Your task to perform on an android device: turn off smart reply in the gmail app Image 0: 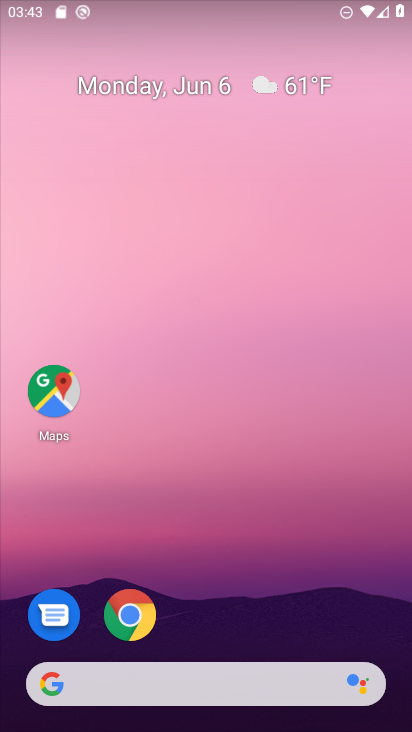
Step 0: drag from (375, 616) to (353, 105)
Your task to perform on an android device: turn off smart reply in the gmail app Image 1: 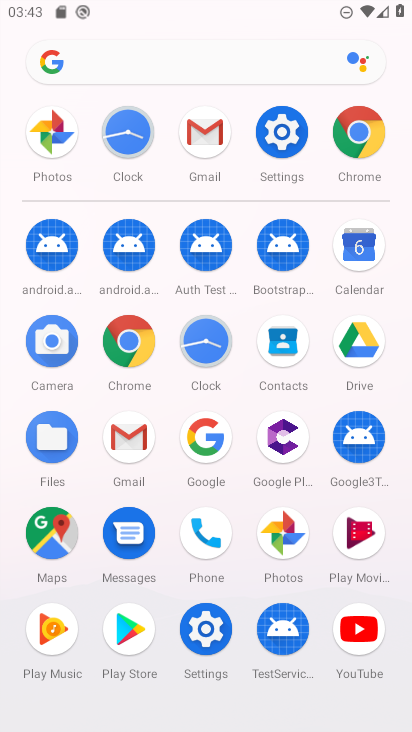
Step 1: click (126, 435)
Your task to perform on an android device: turn off smart reply in the gmail app Image 2: 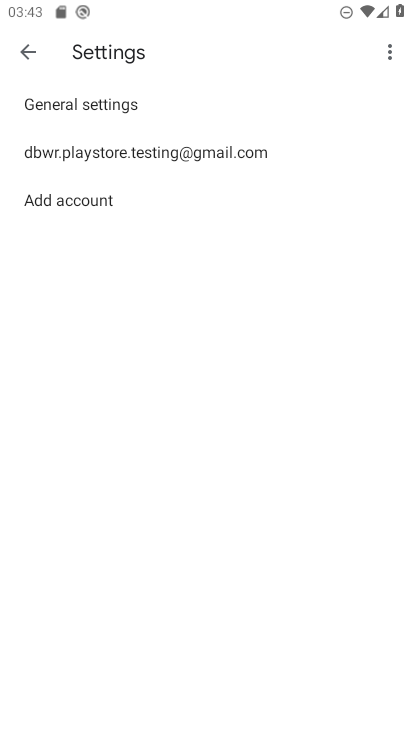
Step 2: click (111, 154)
Your task to perform on an android device: turn off smart reply in the gmail app Image 3: 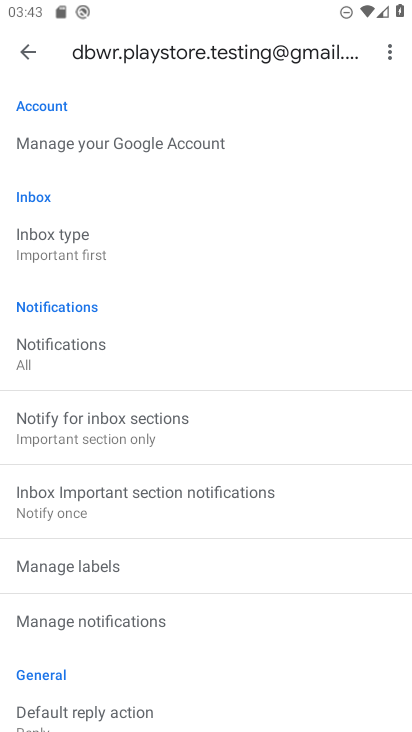
Step 3: drag from (267, 641) to (227, 203)
Your task to perform on an android device: turn off smart reply in the gmail app Image 4: 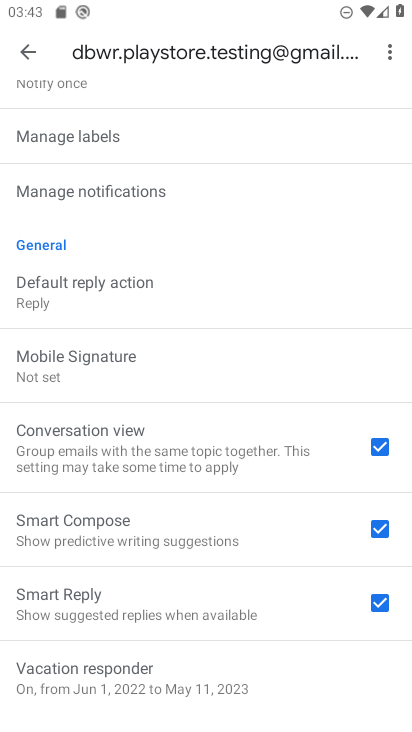
Step 4: click (381, 597)
Your task to perform on an android device: turn off smart reply in the gmail app Image 5: 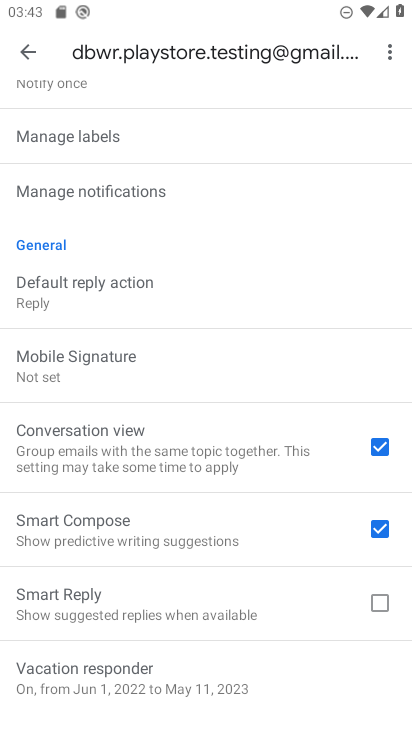
Step 5: task complete